Your task to perform on an android device: open sync settings in chrome Image 0: 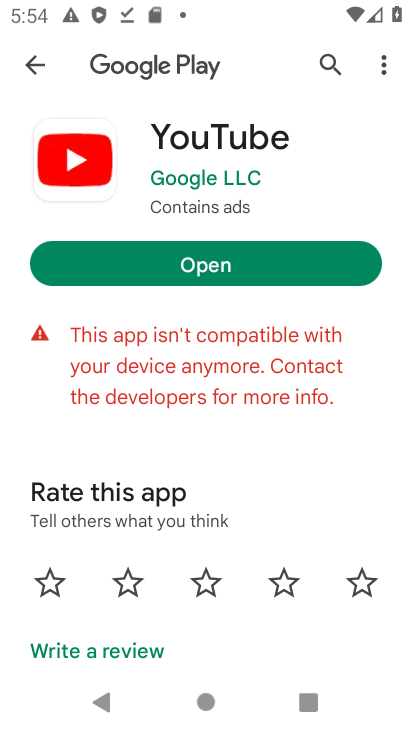
Step 0: drag from (152, 517) to (217, 166)
Your task to perform on an android device: open sync settings in chrome Image 1: 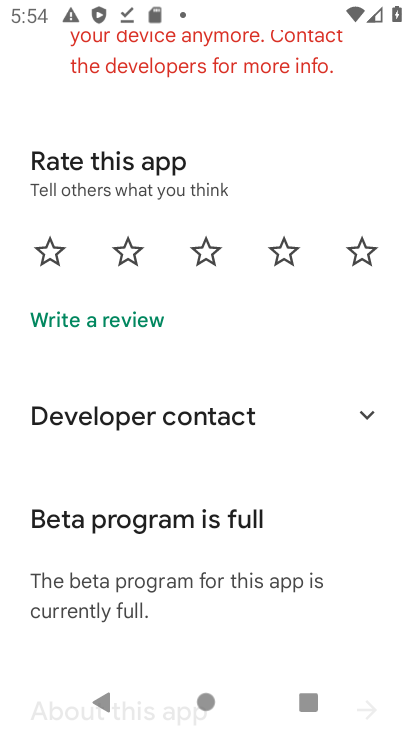
Step 1: drag from (231, 382) to (331, 726)
Your task to perform on an android device: open sync settings in chrome Image 2: 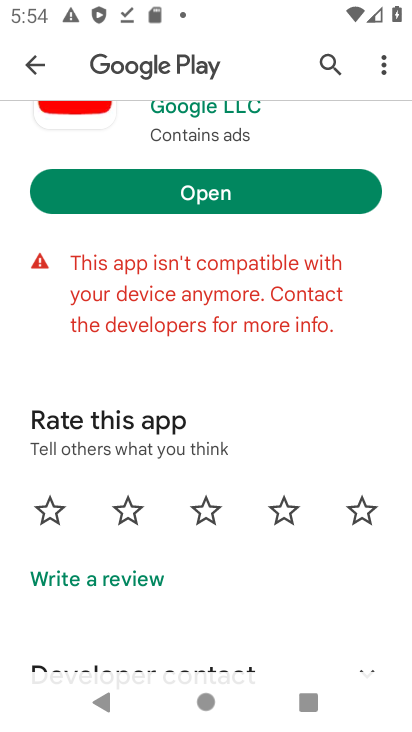
Step 2: press home button
Your task to perform on an android device: open sync settings in chrome Image 3: 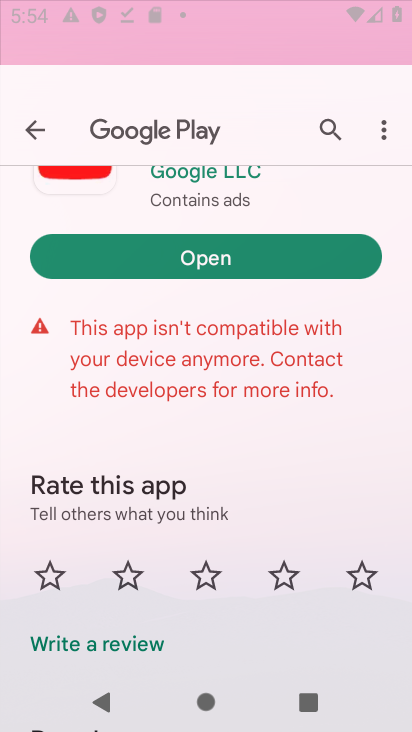
Step 3: drag from (163, 603) to (270, 179)
Your task to perform on an android device: open sync settings in chrome Image 4: 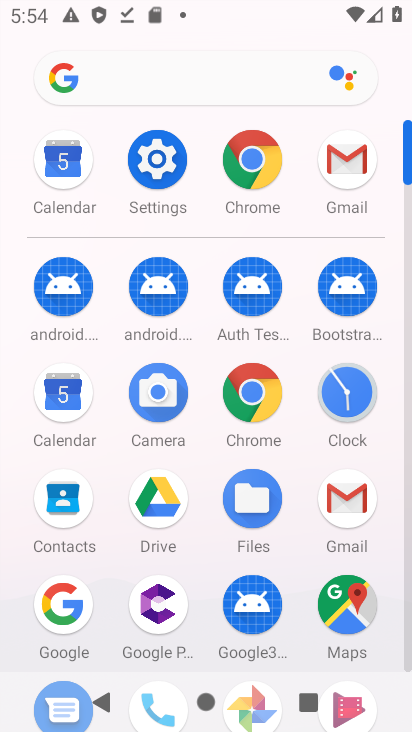
Step 4: click (251, 394)
Your task to perform on an android device: open sync settings in chrome Image 5: 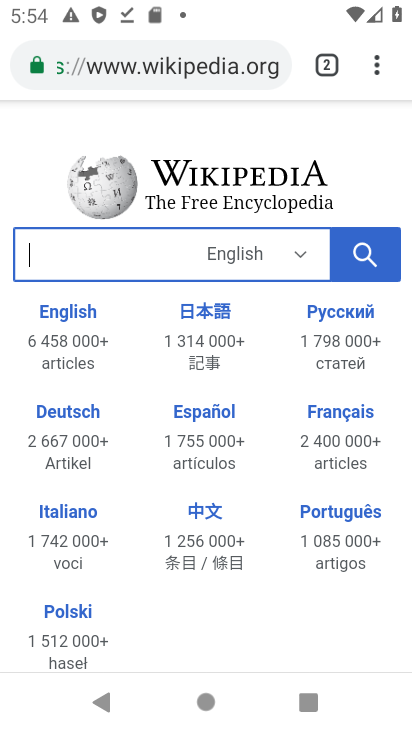
Step 5: drag from (381, 50) to (199, 580)
Your task to perform on an android device: open sync settings in chrome Image 6: 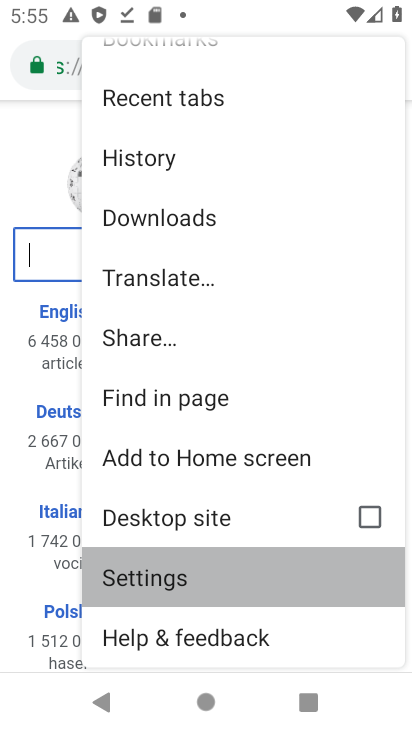
Step 6: click (199, 580)
Your task to perform on an android device: open sync settings in chrome Image 7: 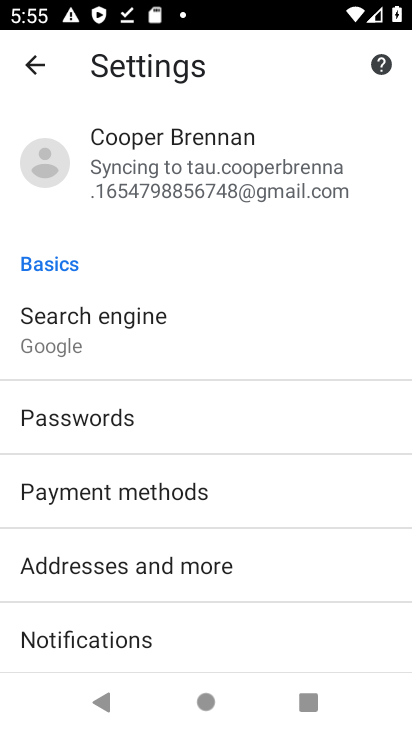
Step 7: drag from (173, 543) to (318, 66)
Your task to perform on an android device: open sync settings in chrome Image 8: 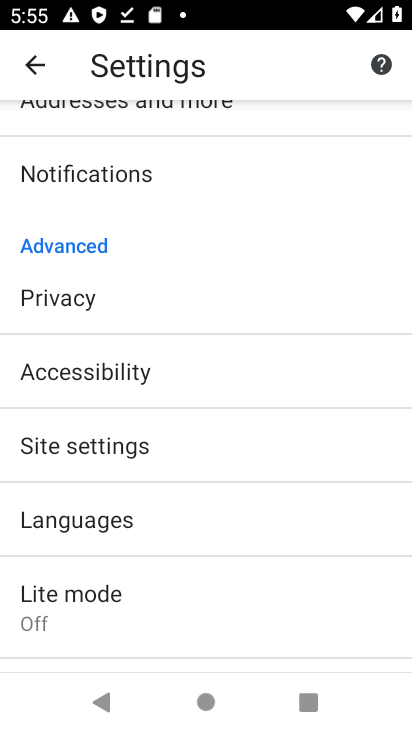
Step 8: click (134, 442)
Your task to perform on an android device: open sync settings in chrome Image 9: 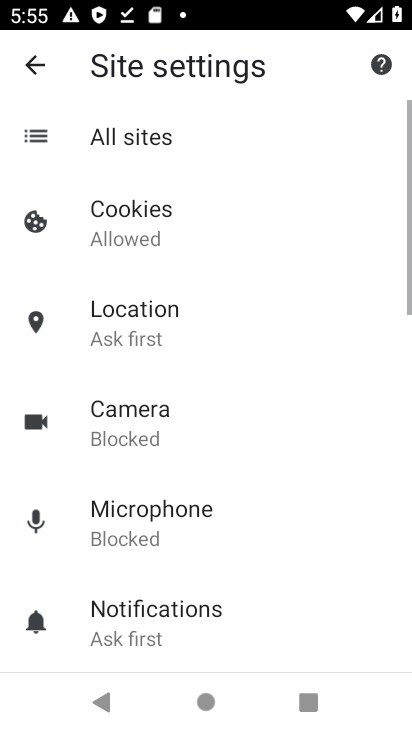
Step 9: drag from (232, 496) to (319, 135)
Your task to perform on an android device: open sync settings in chrome Image 10: 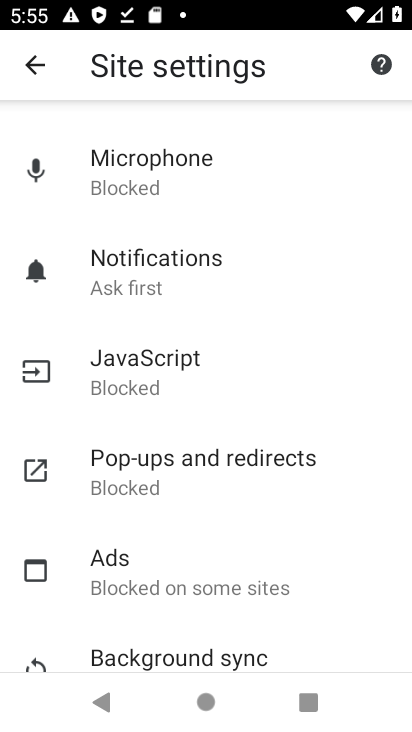
Step 10: click (209, 650)
Your task to perform on an android device: open sync settings in chrome Image 11: 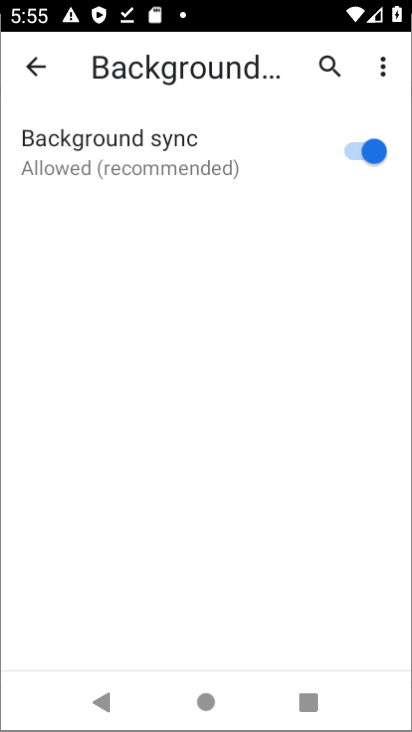
Step 11: task complete